Your task to perform on an android device: Open ESPN.com Image 0: 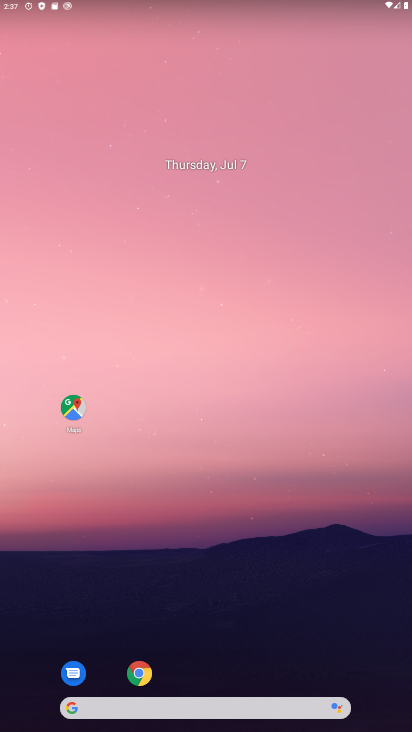
Step 0: drag from (359, 577) to (259, 8)
Your task to perform on an android device: Open ESPN.com Image 1: 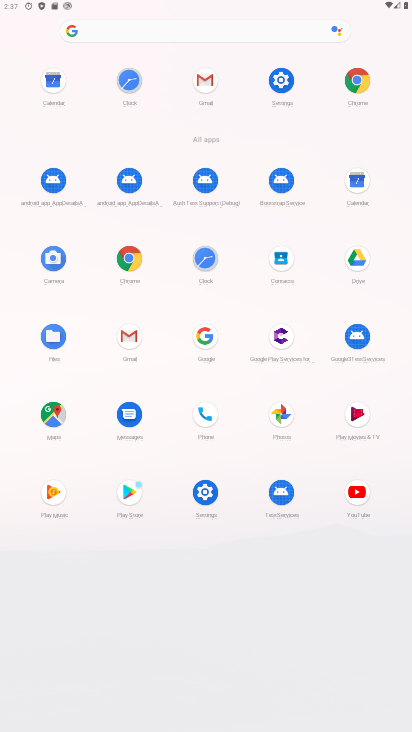
Step 1: click (120, 261)
Your task to perform on an android device: Open ESPN.com Image 2: 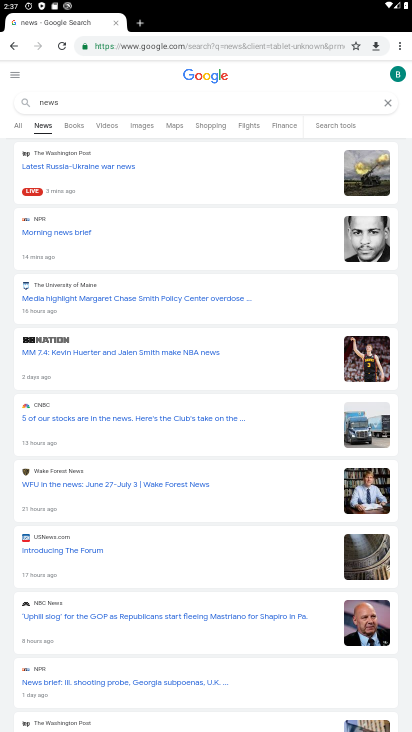
Step 2: click (109, 107)
Your task to perform on an android device: Open ESPN.com Image 3: 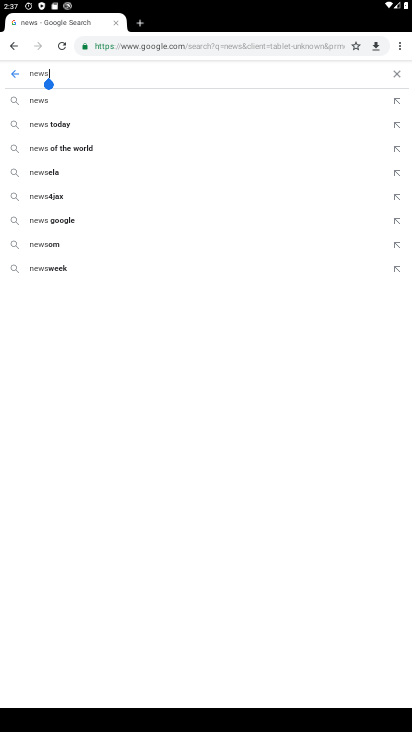
Step 3: type " ESPN.com"
Your task to perform on an android device: Open ESPN.com Image 4: 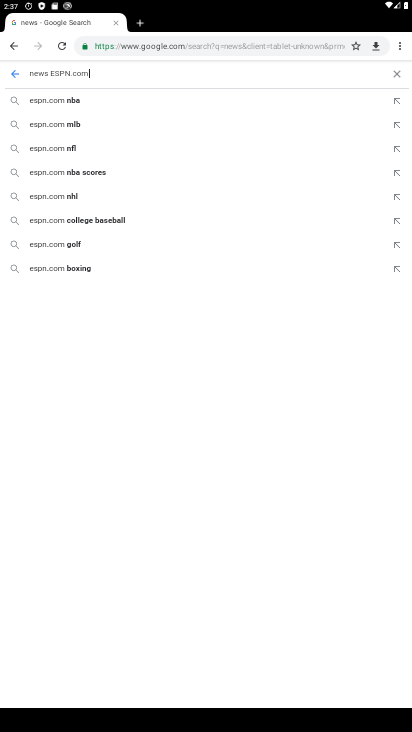
Step 4: task complete